Your task to perform on an android device: allow notifications from all sites in the chrome app Image 0: 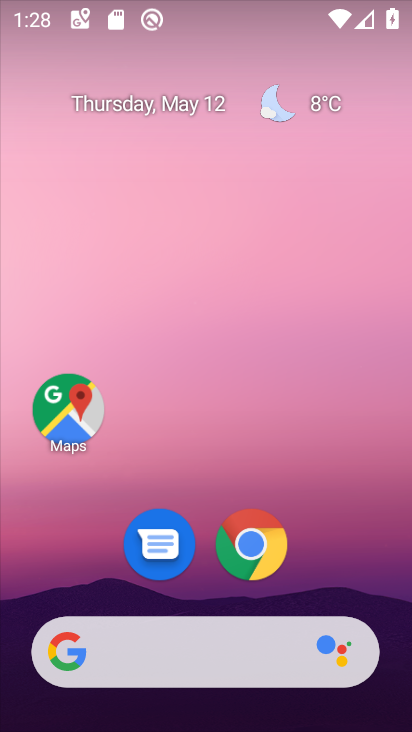
Step 0: click (241, 547)
Your task to perform on an android device: allow notifications from all sites in the chrome app Image 1: 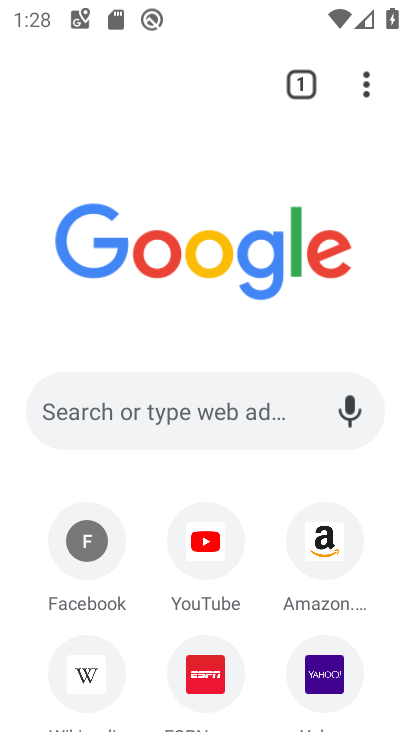
Step 1: click (365, 85)
Your task to perform on an android device: allow notifications from all sites in the chrome app Image 2: 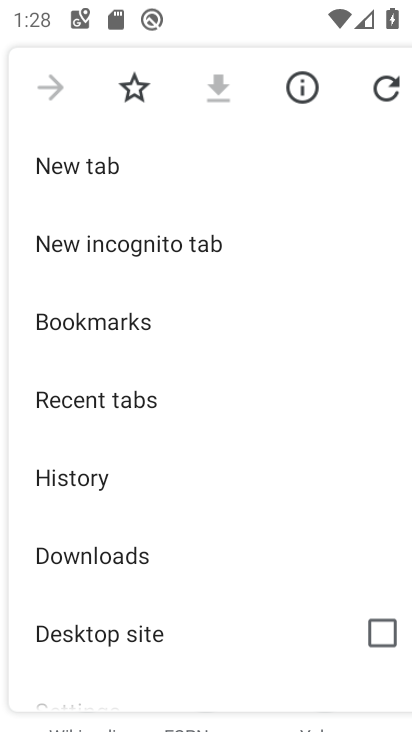
Step 2: drag from (208, 618) to (231, 198)
Your task to perform on an android device: allow notifications from all sites in the chrome app Image 3: 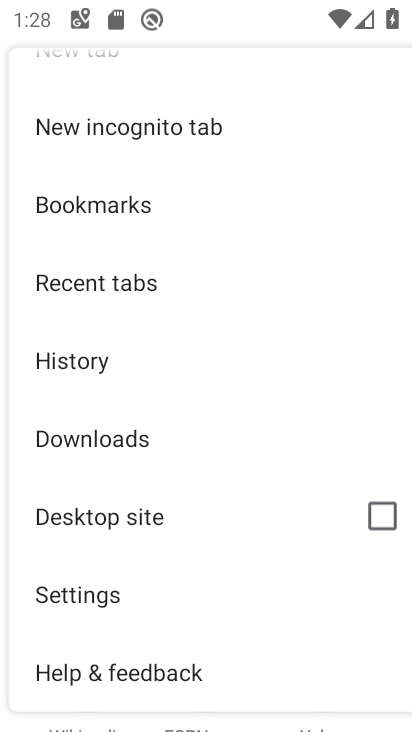
Step 3: click (128, 591)
Your task to perform on an android device: allow notifications from all sites in the chrome app Image 4: 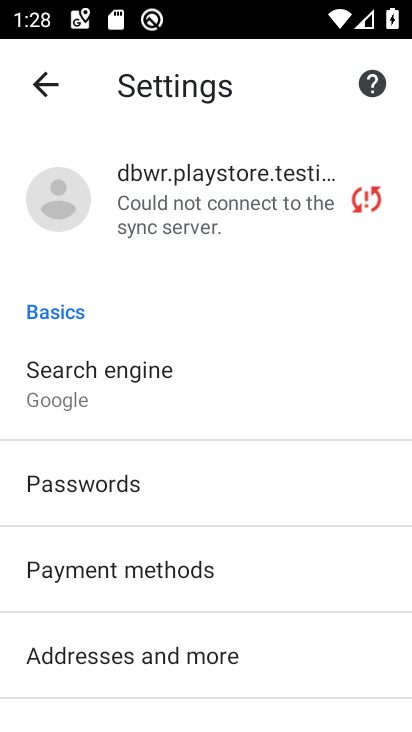
Step 4: drag from (181, 590) to (220, 269)
Your task to perform on an android device: allow notifications from all sites in the chrome app Image 5: 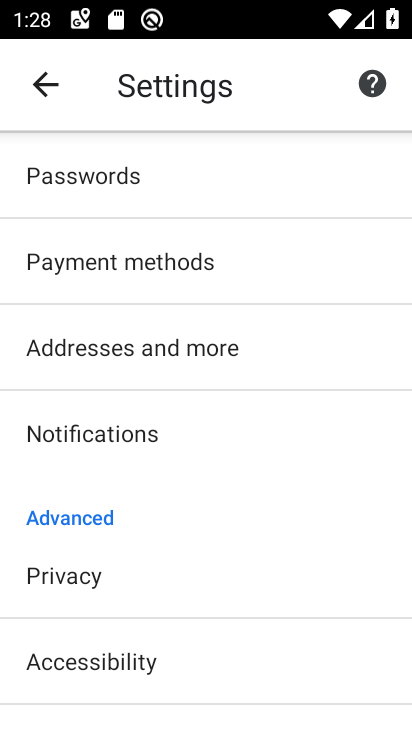
Step 5: click (116, 427)
Your task to perform on an android device: allow notifications from all sites in the chrome app Image 6: 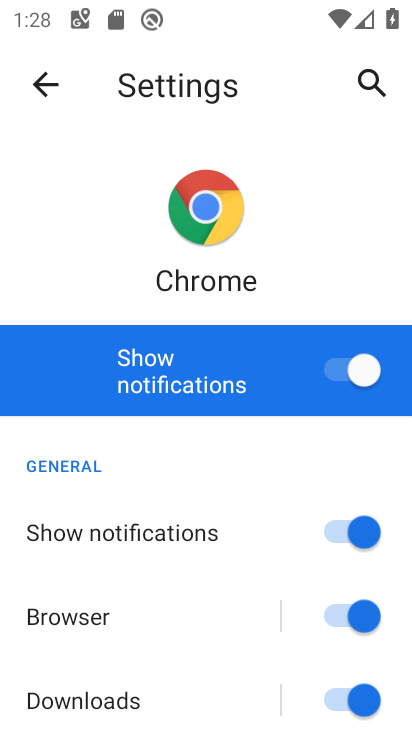
Step 6: task complete